Your task to perform on an android device: install app "eBay: The shopping marketplace" Image 0: 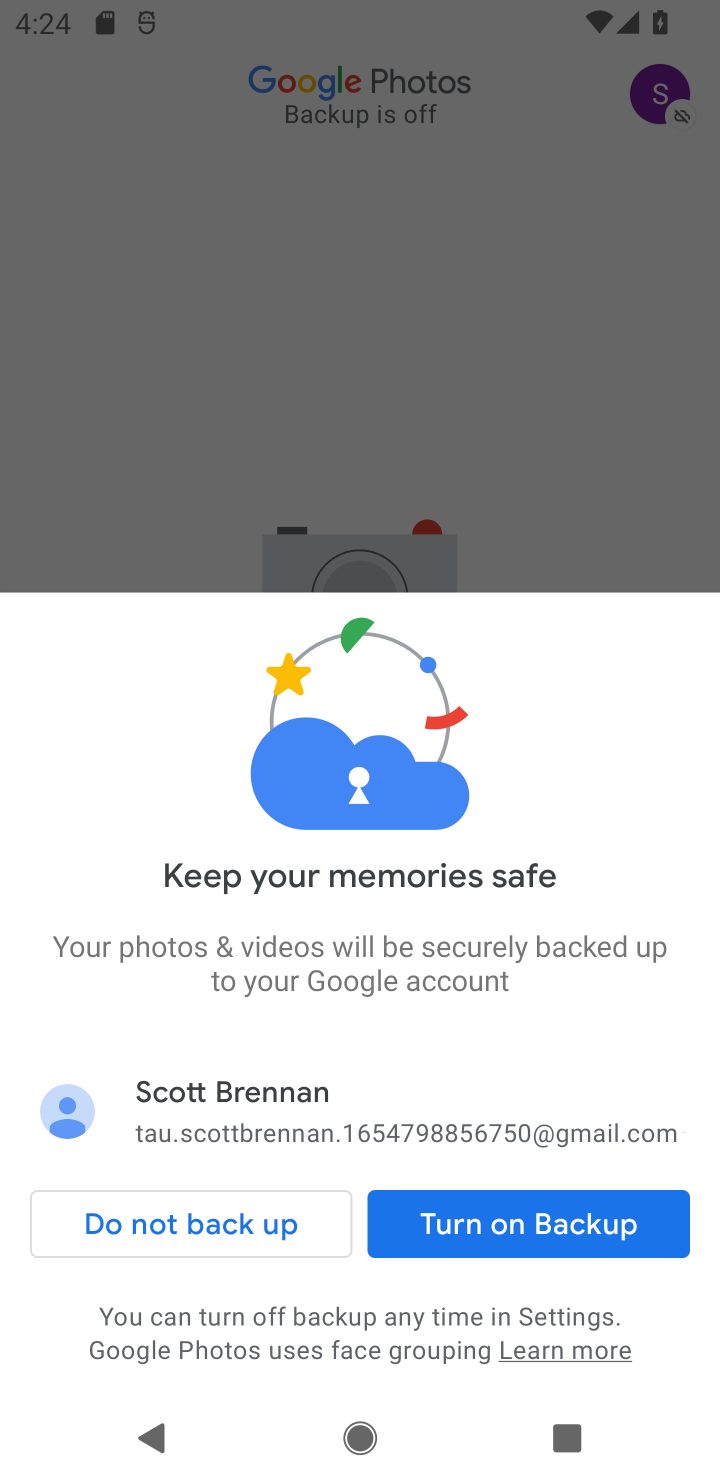
Step 0: press home button
Your task to perform on an android device: install app "eBay: The shopping marketplace" Image 1: 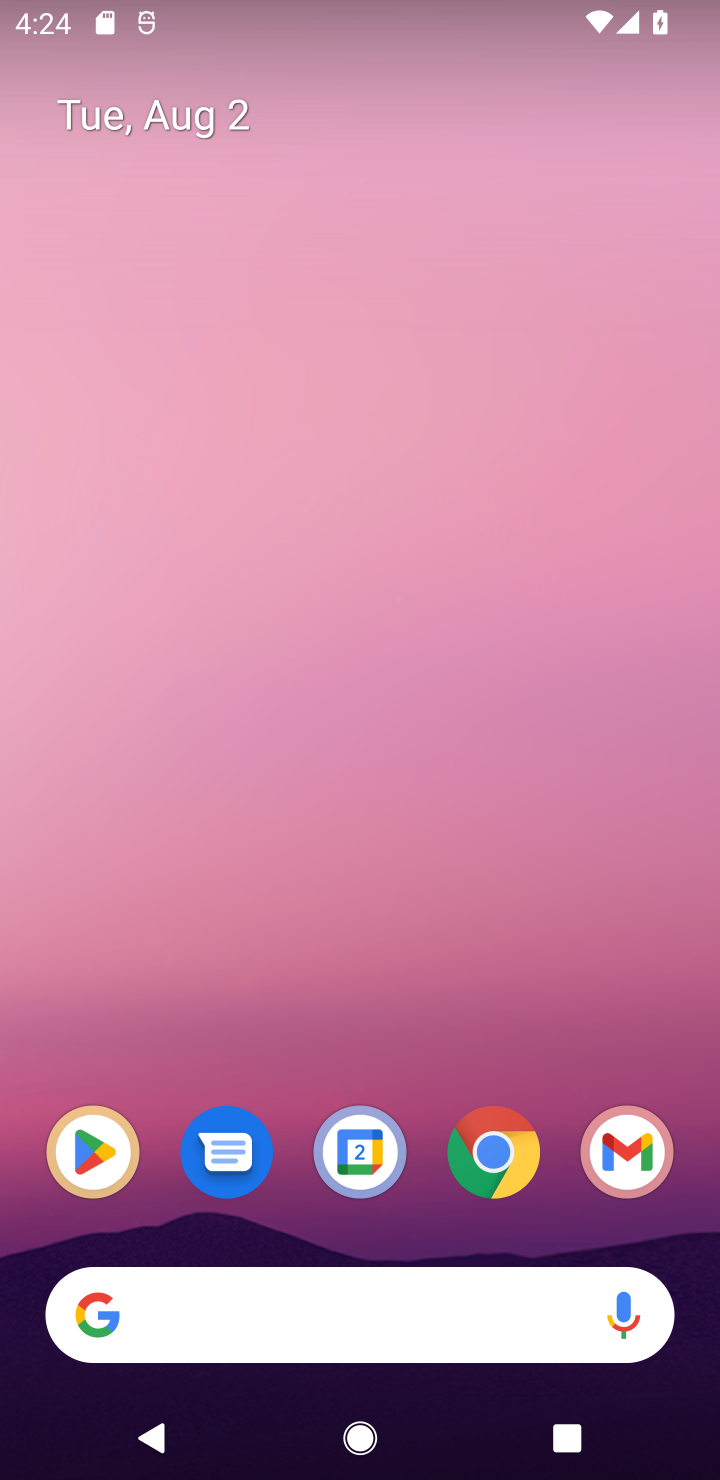
Step 1: drag from (344, 1222) to (82, 5)
Your task to perform on an android device: install app "eBay: The shopping marketplace" Image 2: 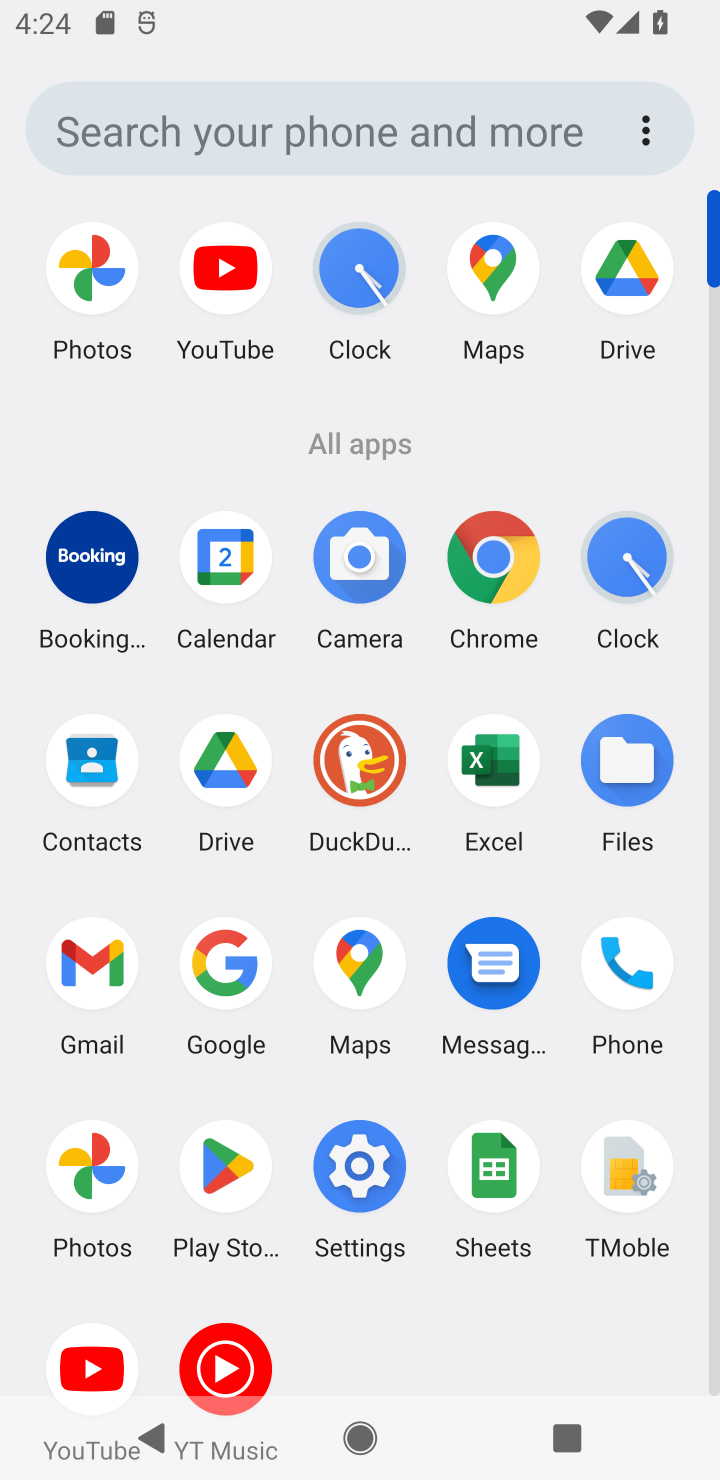
Step 2: click (236, 1193)
Your task to perform on an android device: install app "eBay: The shopping marketplace" Image 3: 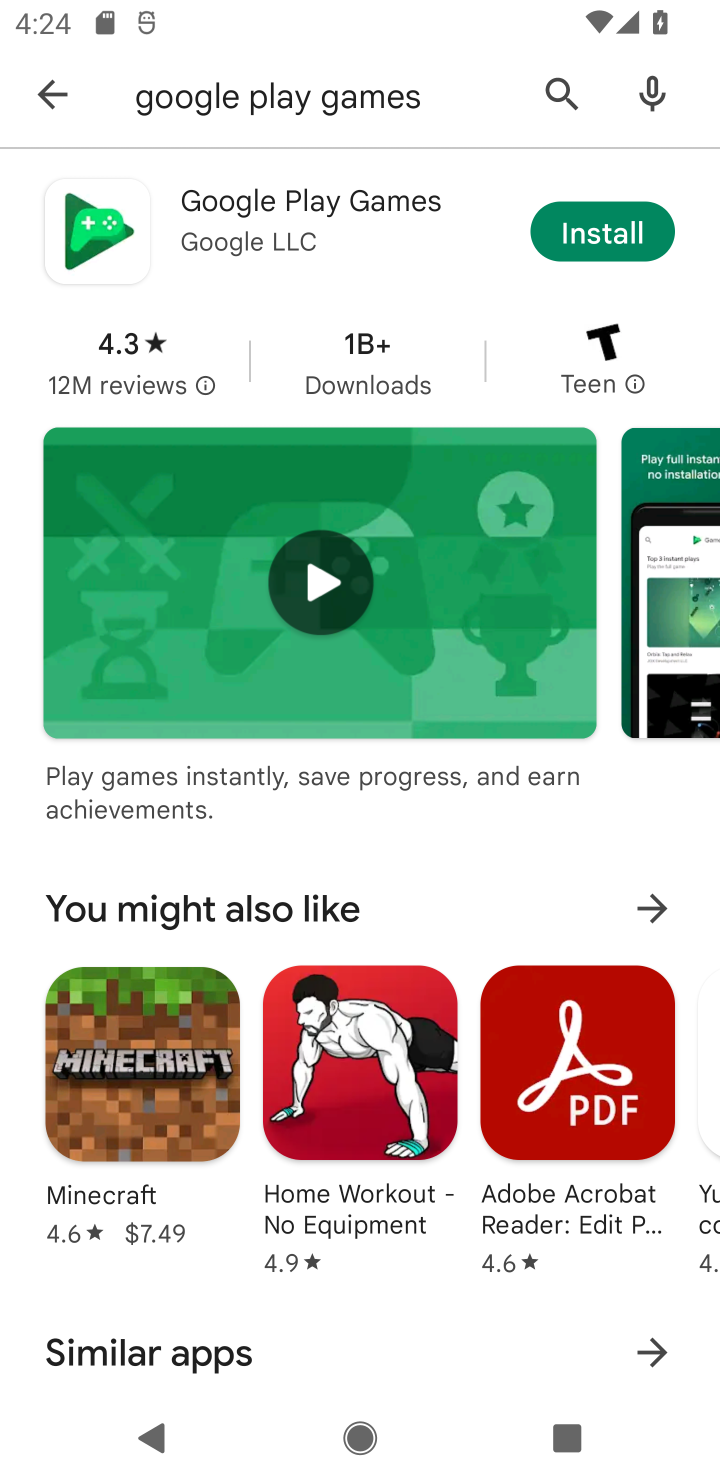
Step 3: click (24, 80)
Your task to perform on an android device: install app "eBay: The shopping marketplace" Image 4: 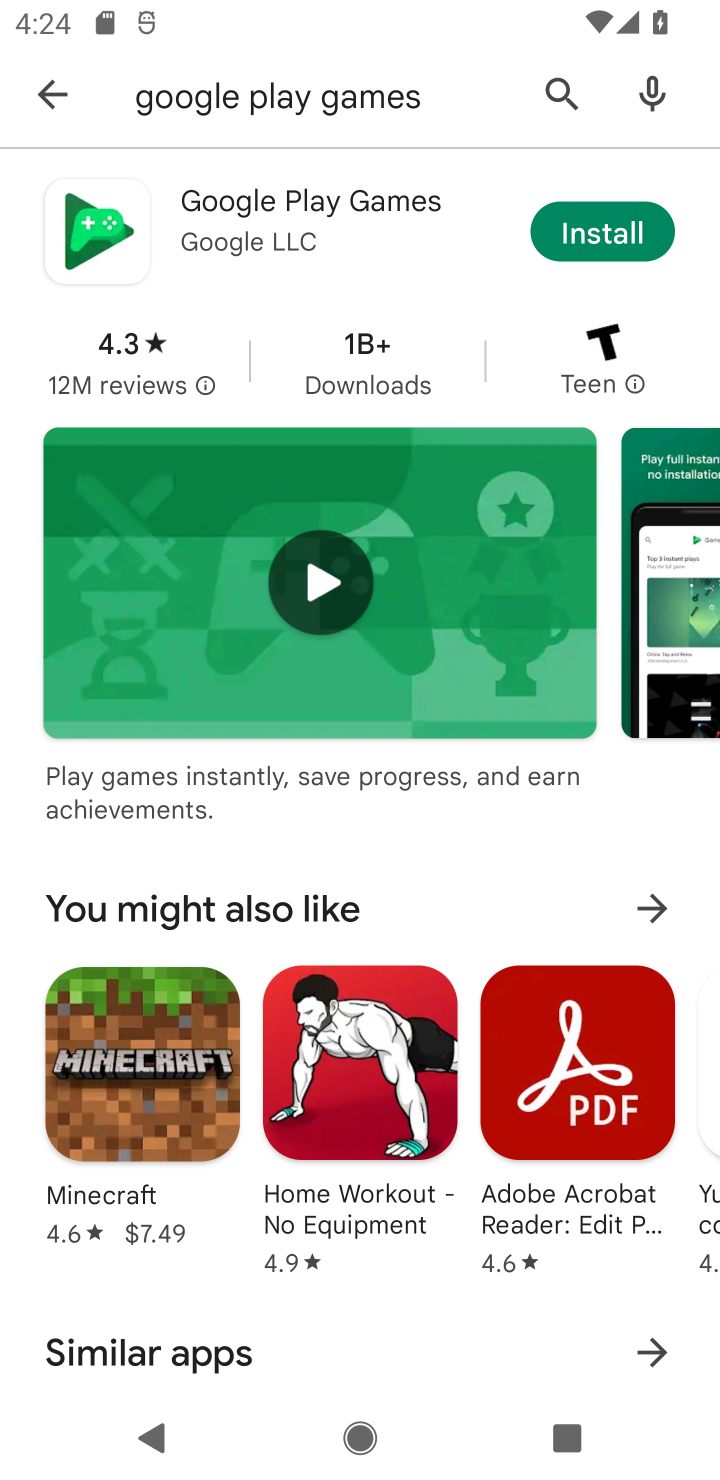
Step 4: click (35, 89)
Your task to perform on an android device: install app "eBay: The shopping marketplace" Image 5: 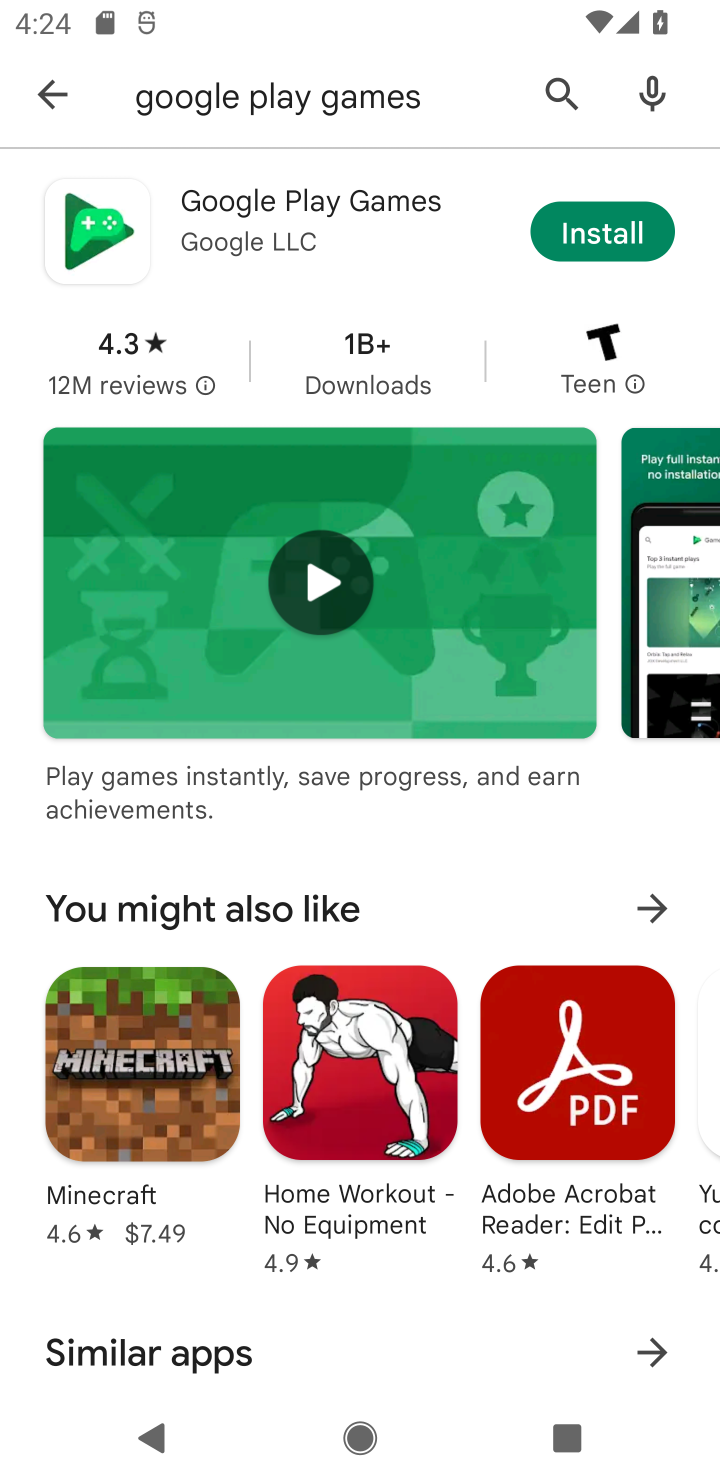
Step 5: click (42, 75)
Your task to perform on an android device: install app "eBay: The shopping marketplace" Image 6: 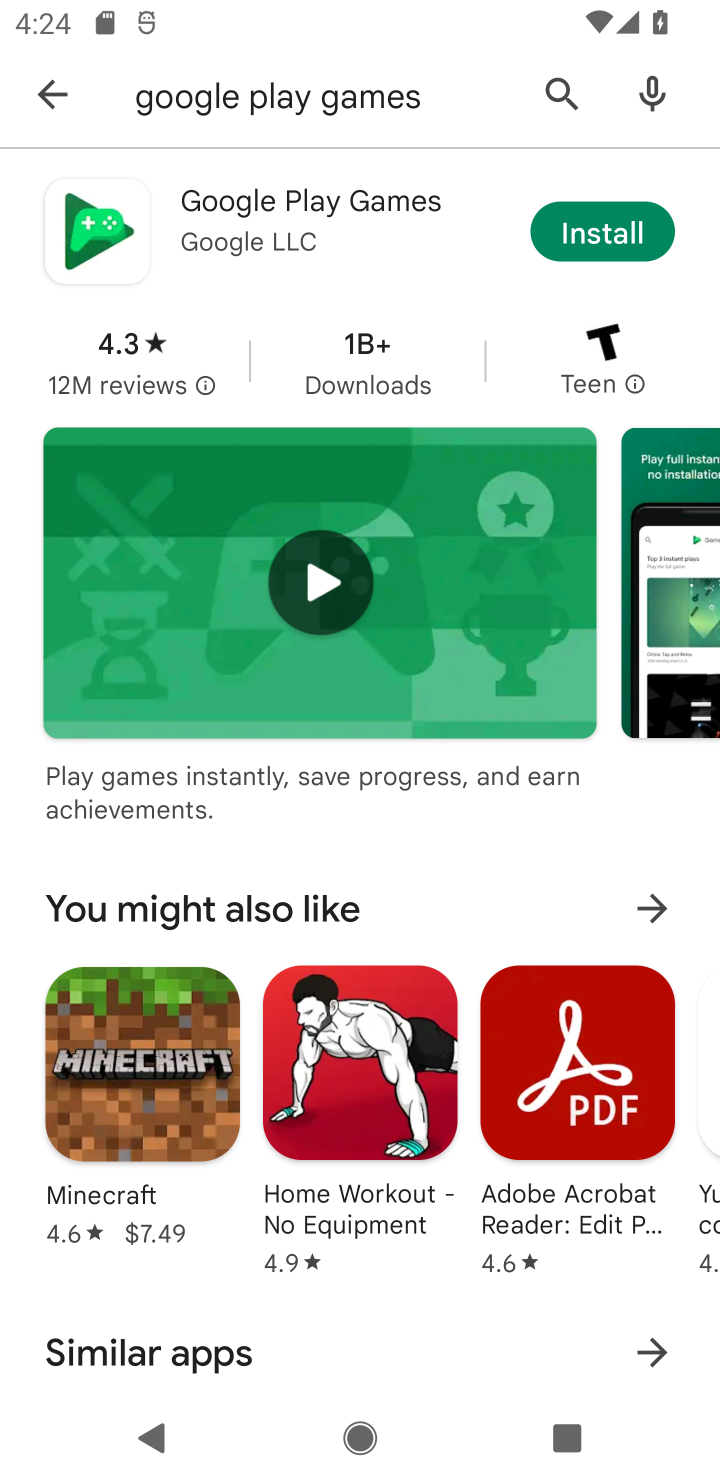
Step 6: click (42, 75)
Your task to perform on an android device: install app "eBay: The shopping marketplace" Image 7: 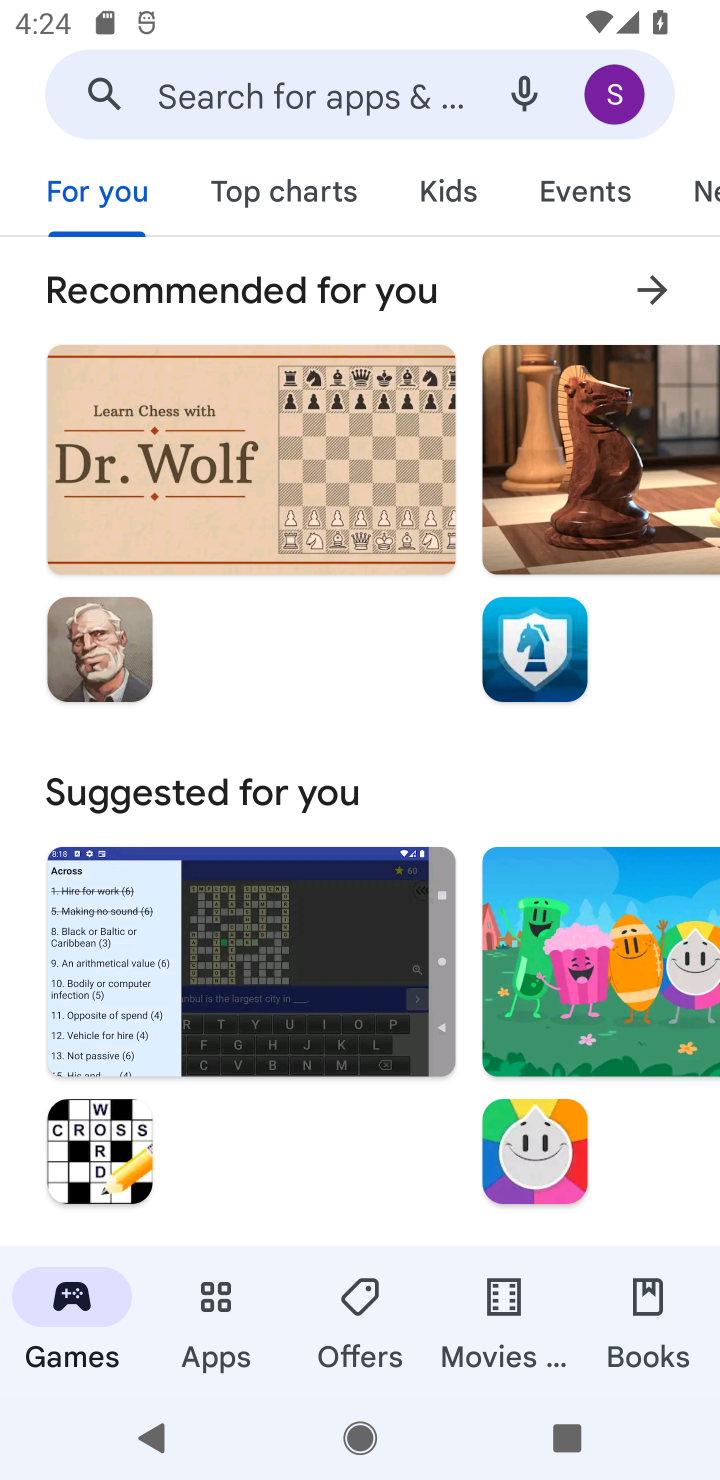
Step 7: click (179, 109)
Your task to perform on an android device: install app "eBay: The shopping marketplace" Image 8: 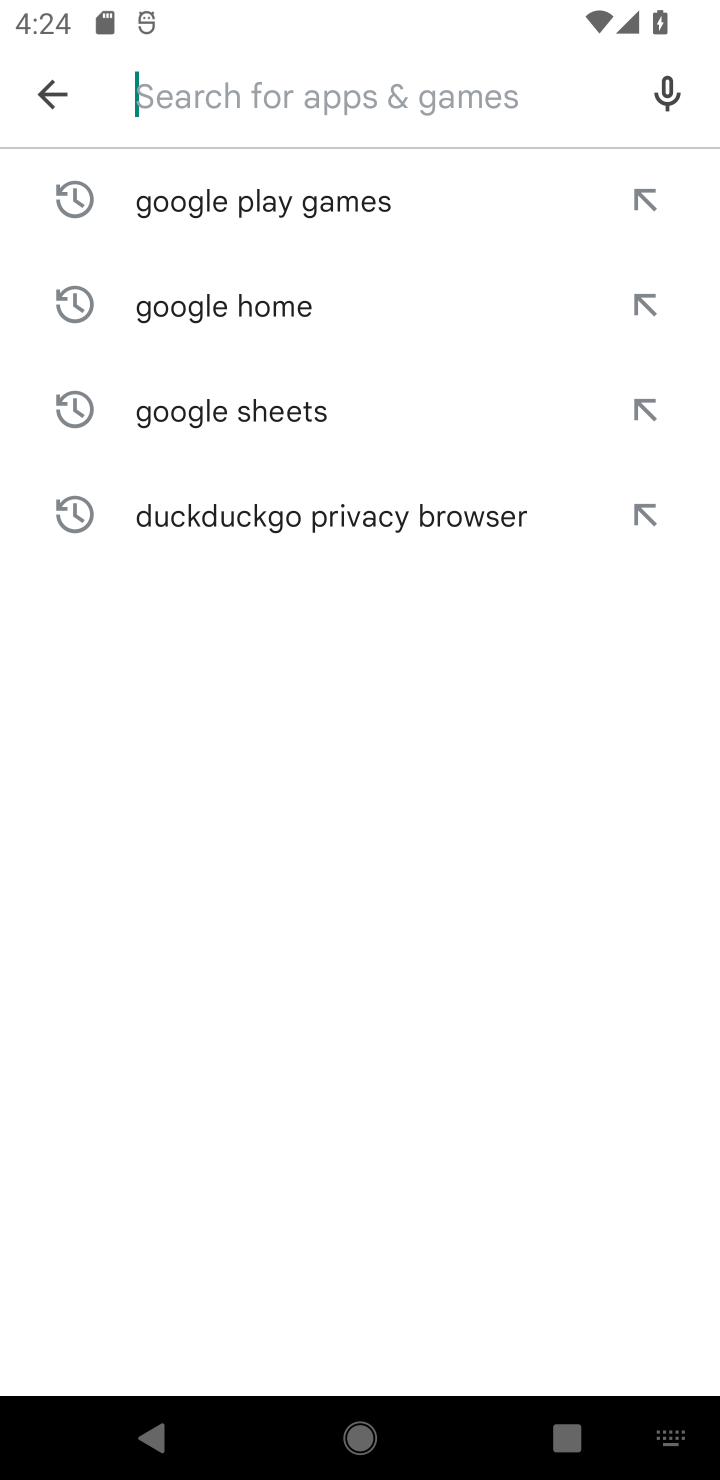
Step 8: type "eBay: The shopping marketplace""
Your task to perform on an android device: install app "eBay: The shopping marketplace" Image 9: 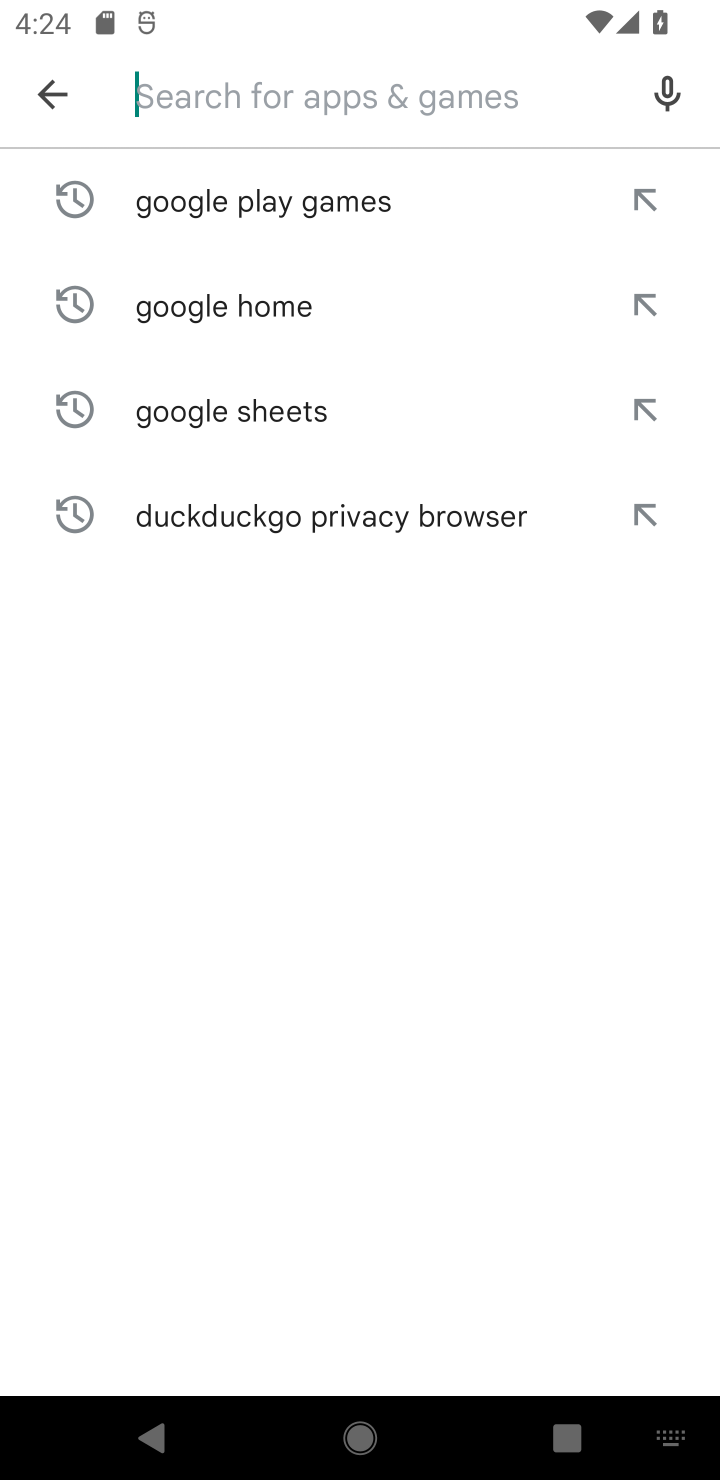
Step 9: type ""
Your task to perform on an android device: install app "eBay: The shopping marketplace" Image 10: 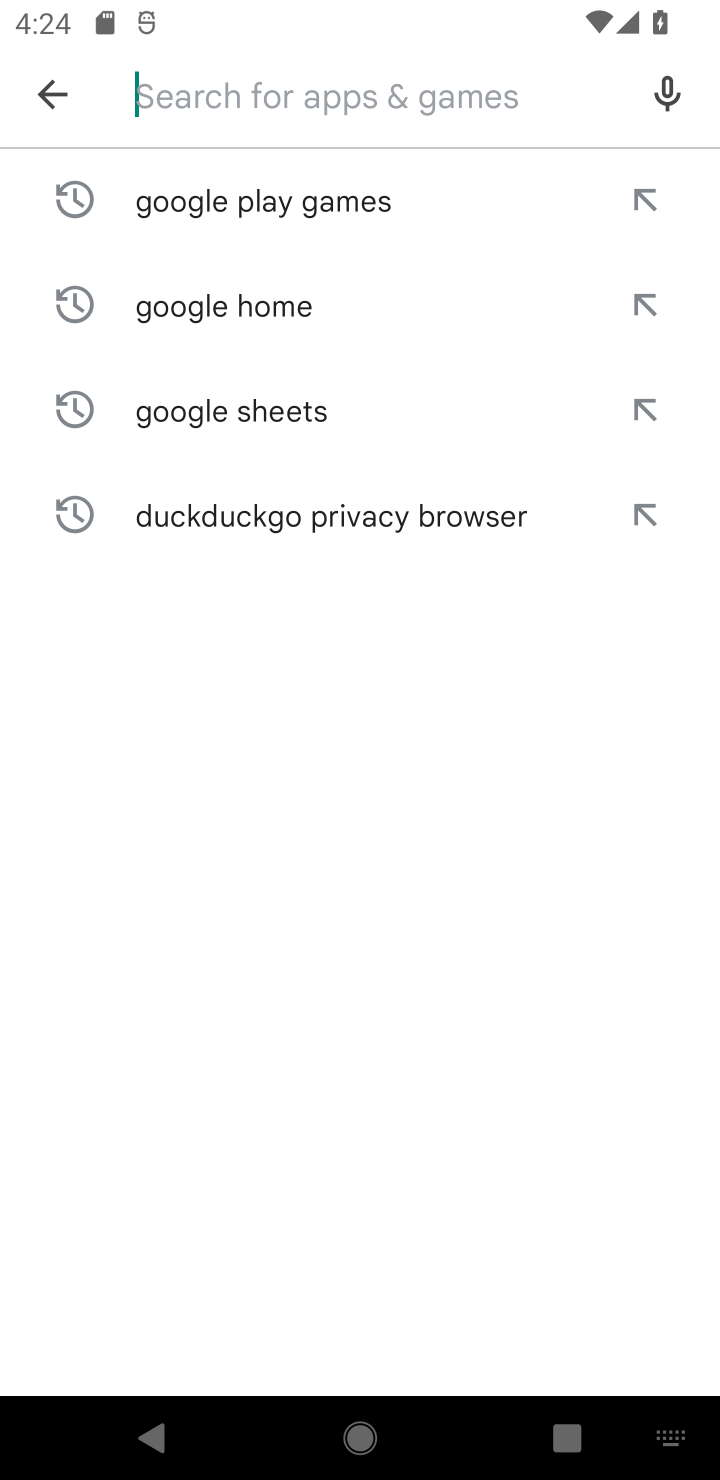
Step 10: type "eBay"
Your task to perform on an android device: install app "eBay: The shopping marketplace" Image 11: 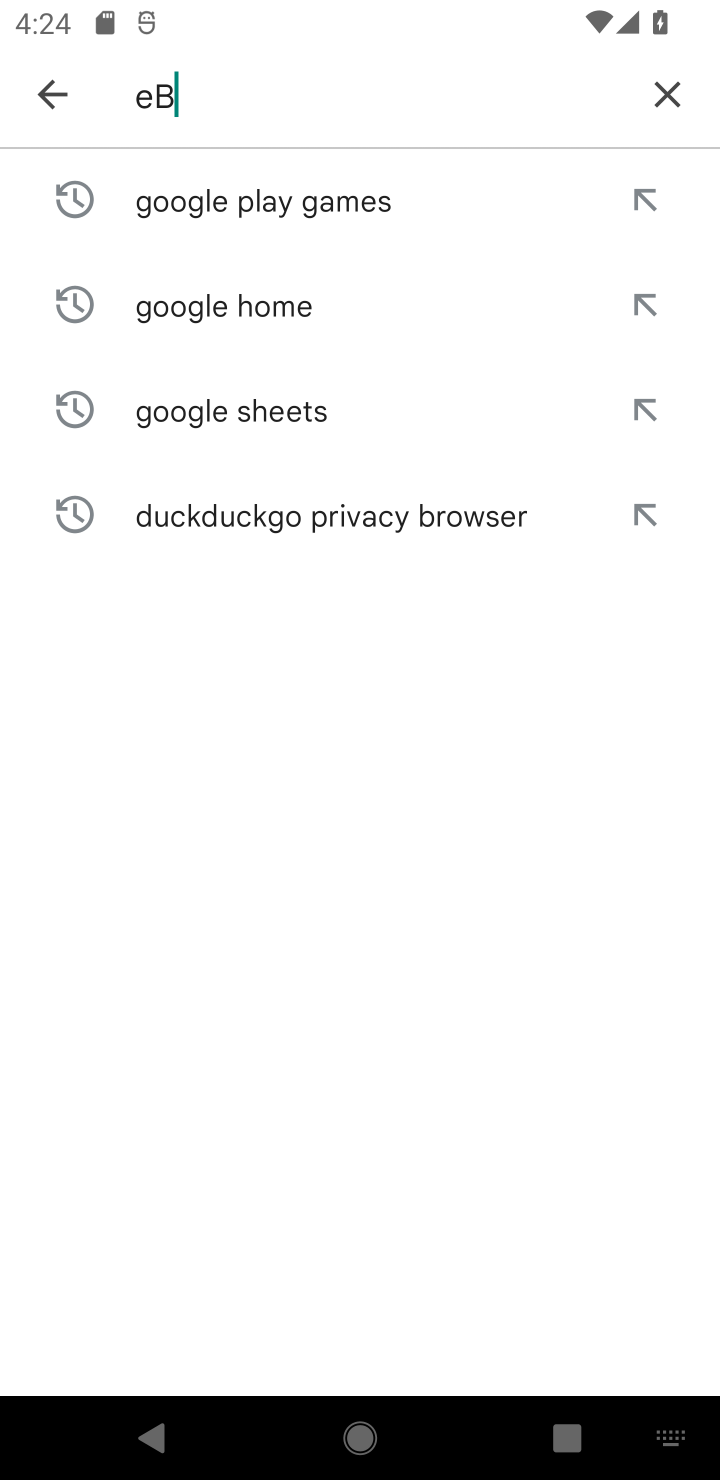
Step 11: type ""
Your task to perform on an android device: install app "eBay: The shopping marketplace" Image 12: 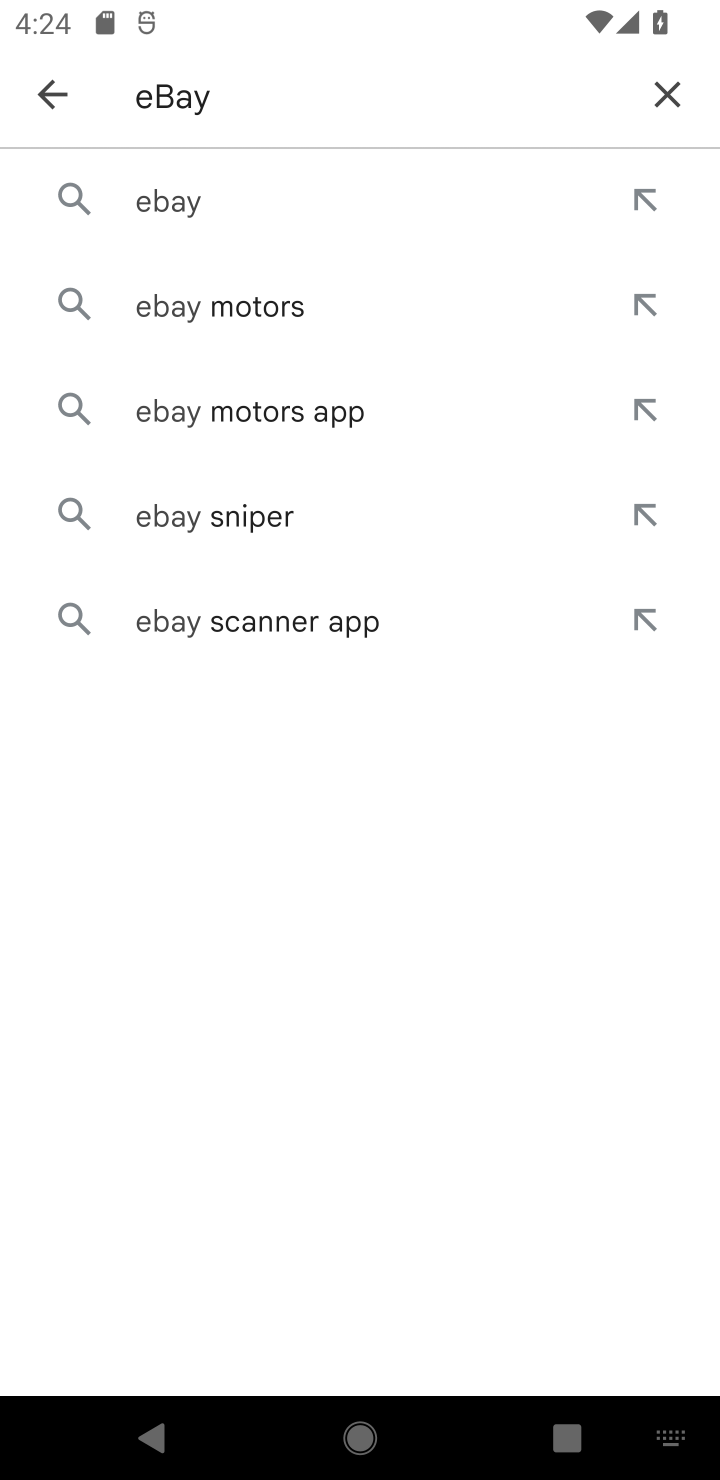
Step 12: click (208, 198)
Your task to perform on an android device: install app "eBay: The shopping marketplace" Image 13: 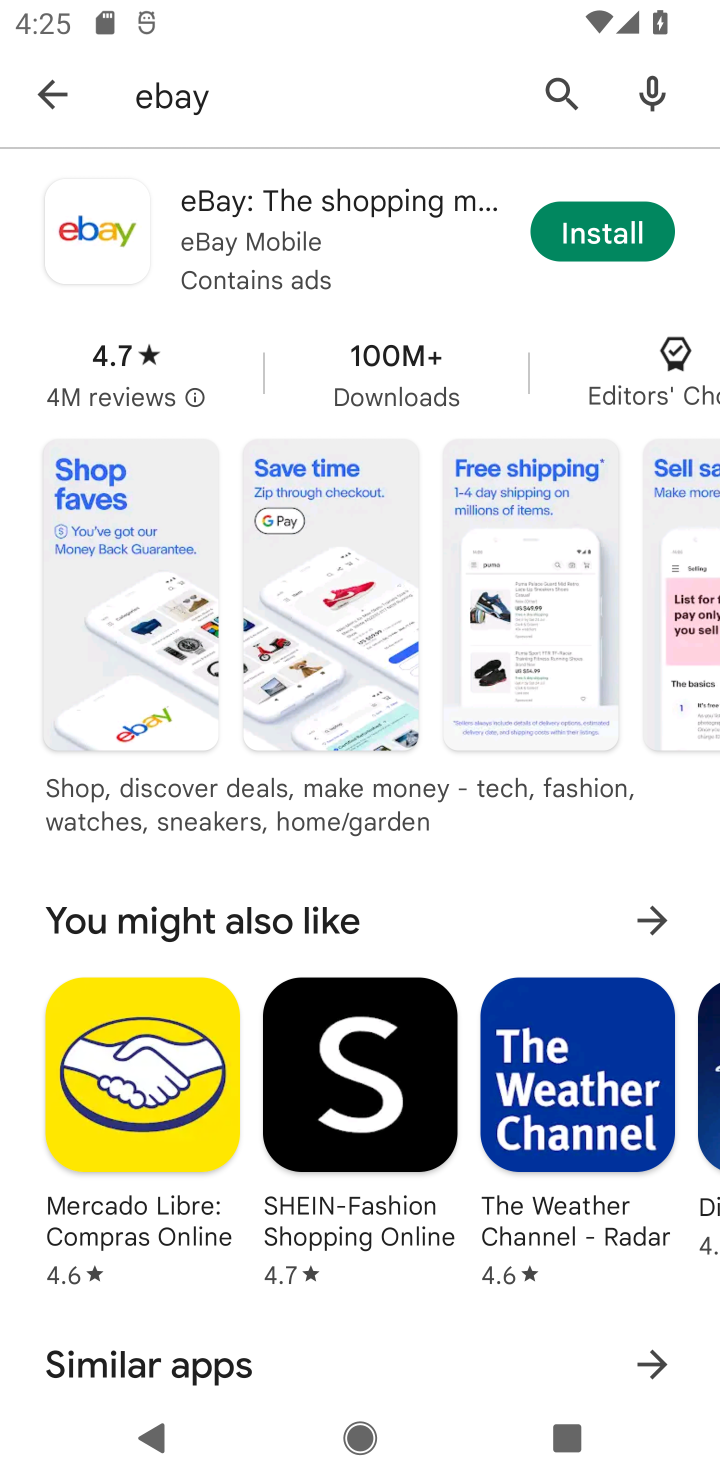
Step 13: click (599, 214)
Your task to perform on an android device: install app "eBay: The shopping marketplace" Image 14: 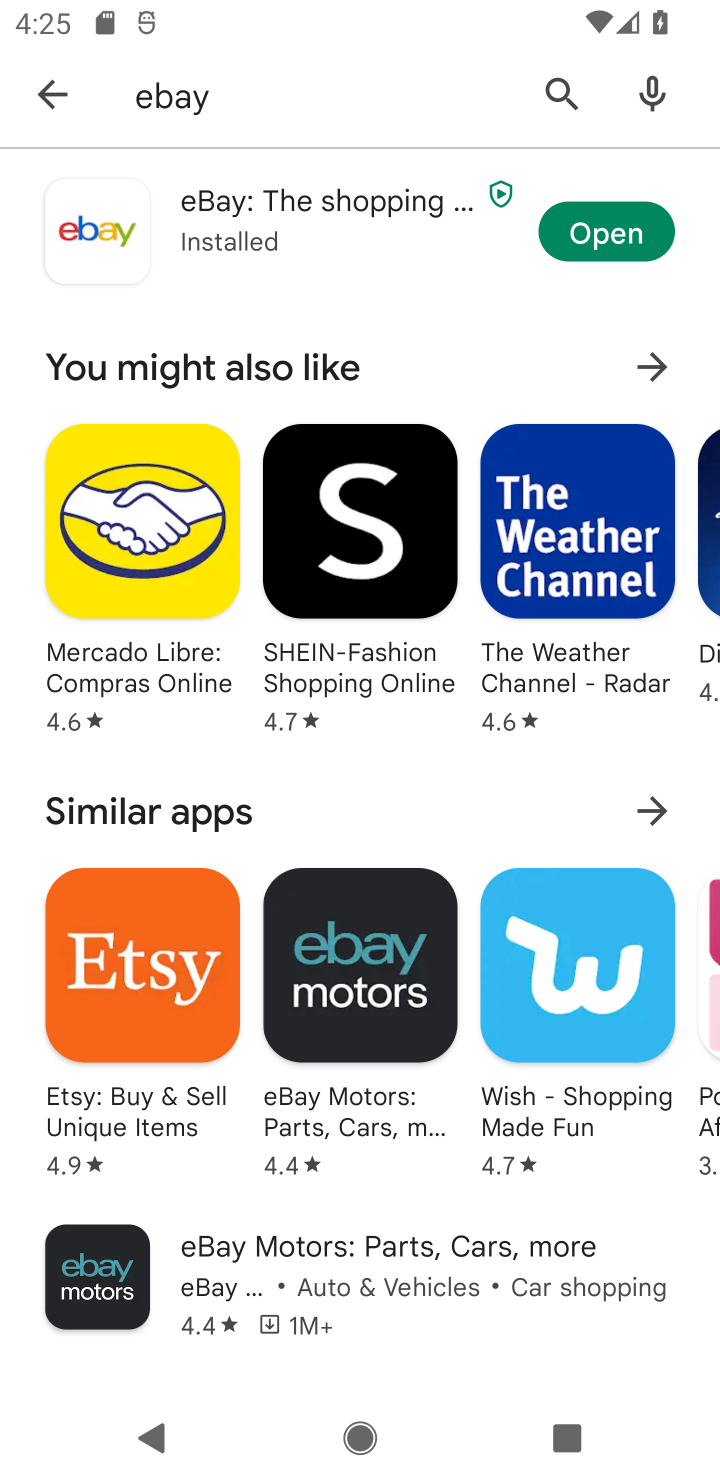
Step 14: click (644, 228)
Your task to perform on an android device: install app "eBay: The shopping marketplace" Image 15: 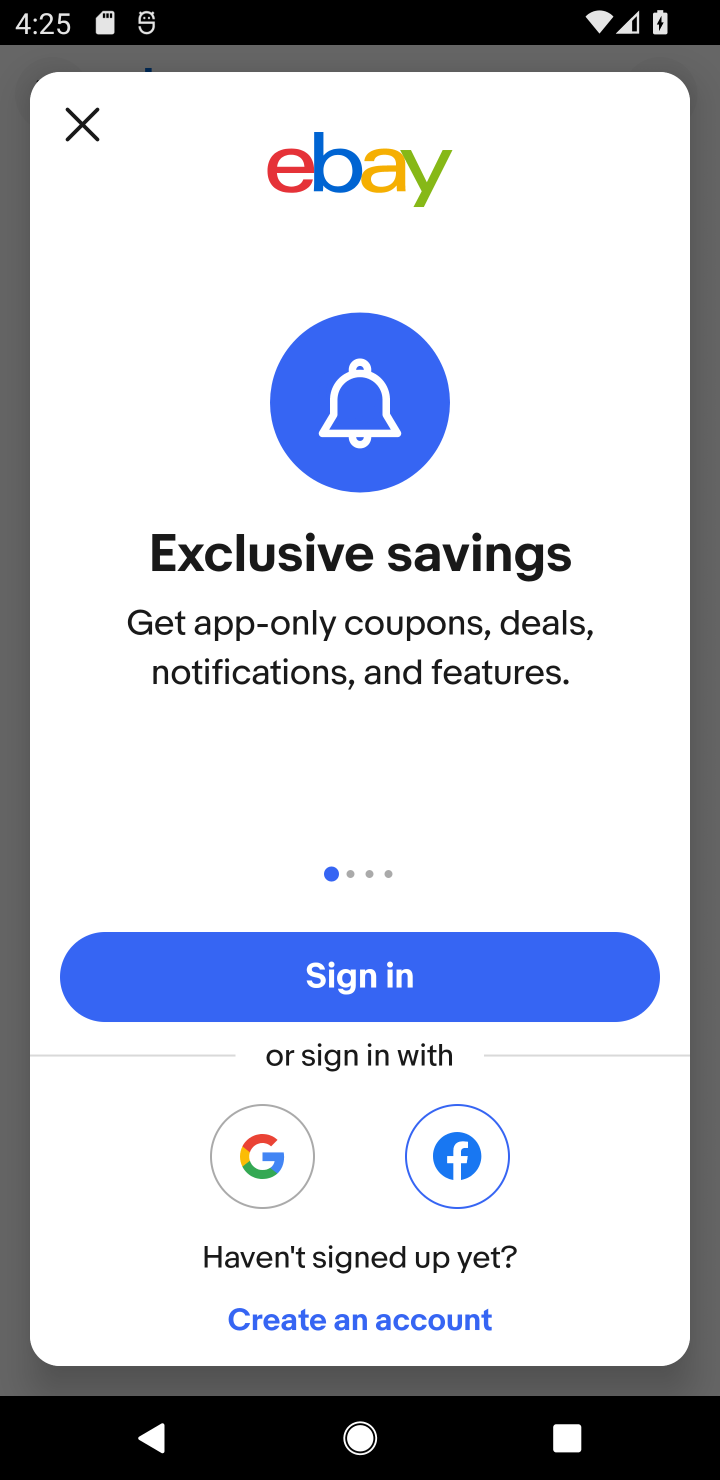
Step 15: task complete